Your task to perform on an android device: open device folders in google photos Image 0: 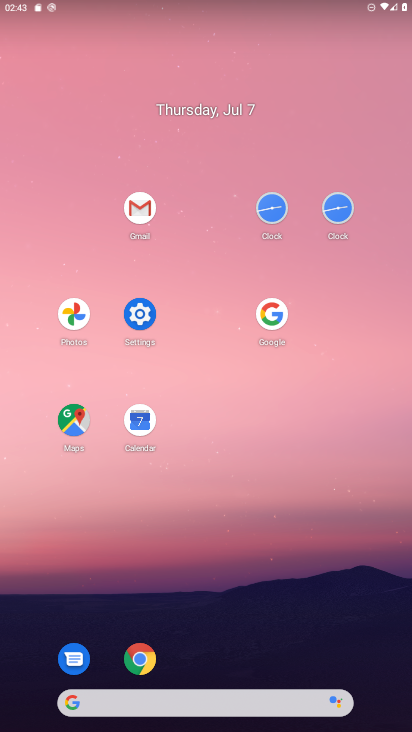
Step 0: click (59, 325)
Your task to perform on an android device: open device folders in google photos Image 1: 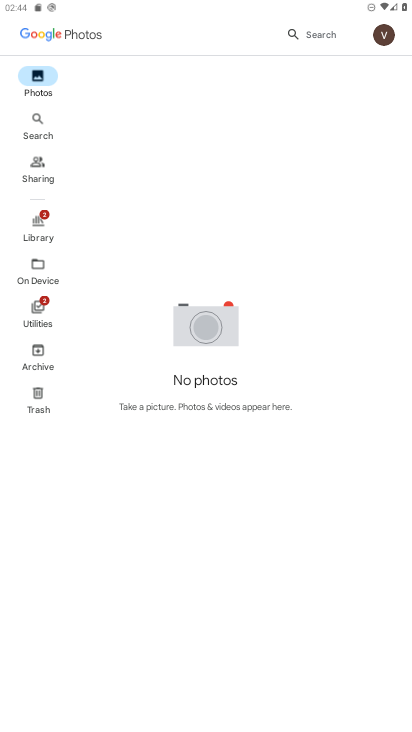
Step 1: click (44, 277)
Your task to perform on an android device: open device folders in google photos Image 2: 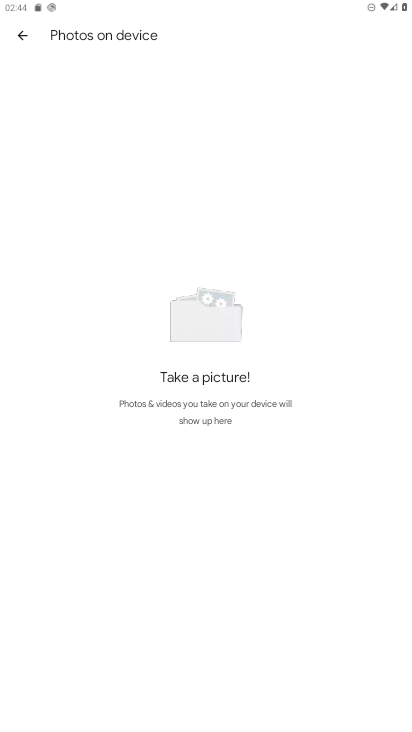
Step 2: task complete